Your task to perform on an android device: Open calendar and show me the second week of next month Image 0: 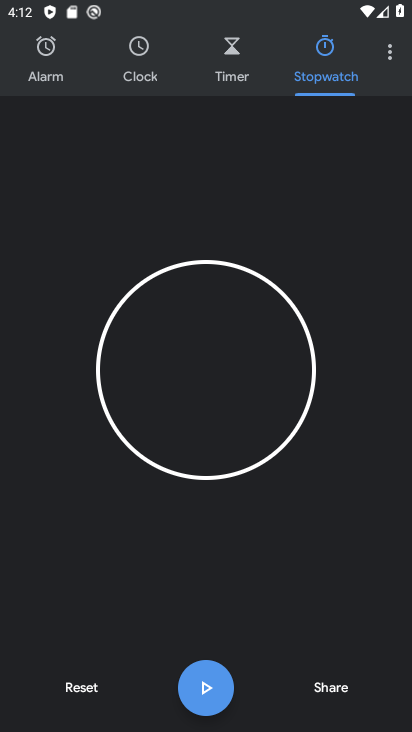
Step 0: press home button
Your task to perform on an android device: Open calendar and show me the second week of next month Image 1: 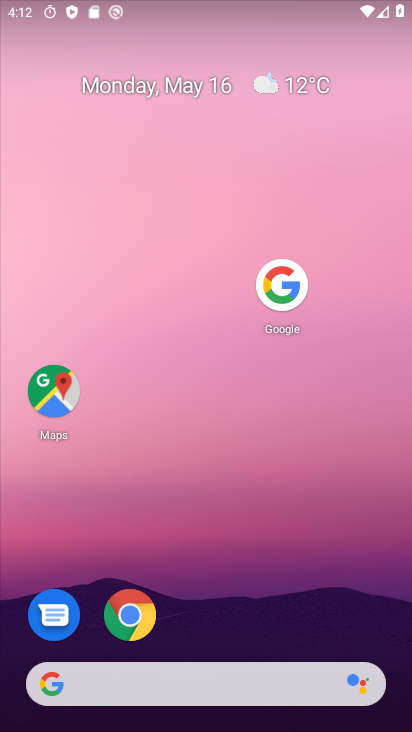
Step 1: drag from (209, 642) to (167, 0)
Your task to perform on an android device: Open calendar and show me the second week of next month Image 2: 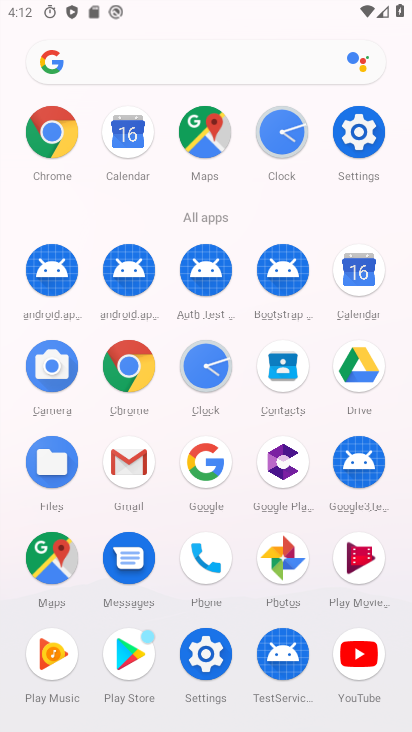
Step 2: click (353, 288)
Your task to perform on an android device: Open calendar and show me the second week of next month Image 3: 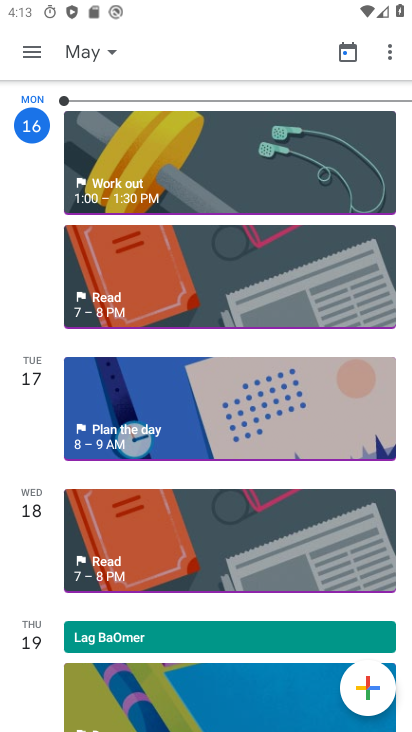
Step 3: click (32, 52)
Your task to perform on an android device: Open calendar and show me the second week of next month Image 4: 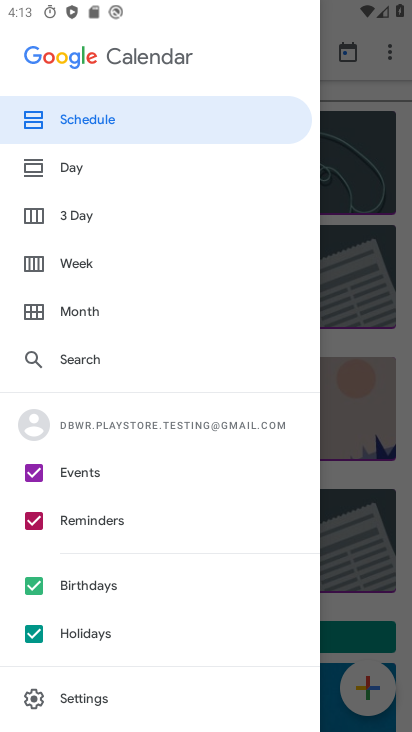
Step 4: click (79, 254)
Your task to perform on an android device: Open calendar and show me the second week of next month Image 5: 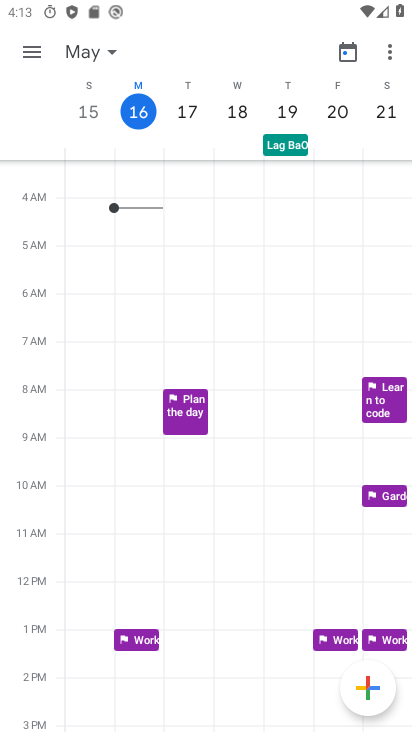
Step 5: task complete